Your task to perform on an android device: open chrome privacy settings Image 0: 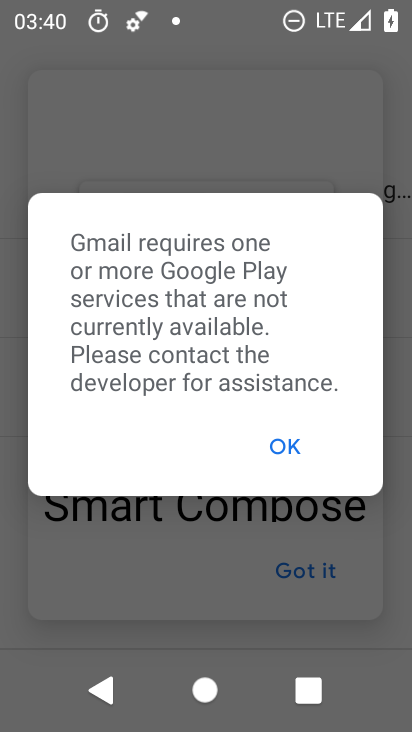
Step 0: click (294, 443)
Your task to perform on an android device: open chrome privacy settings Image 1: 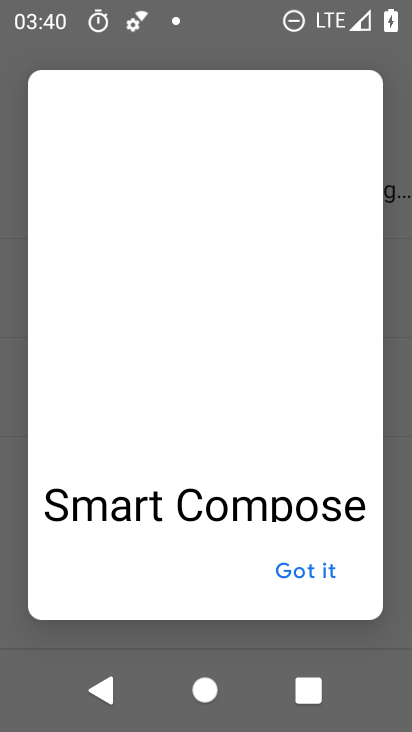
Step 1: press home button
Your task to perform on an android device: open chrome privacy settings Image 2: 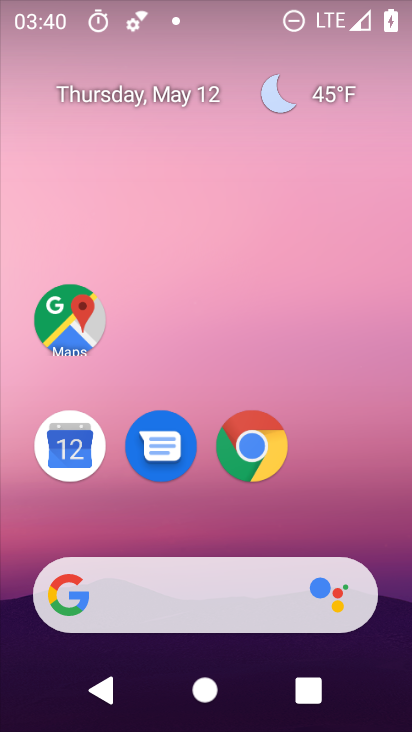
Step 2: click (270, 447)
Your task to perform on an android device: open chrome privacy settings Image 3: 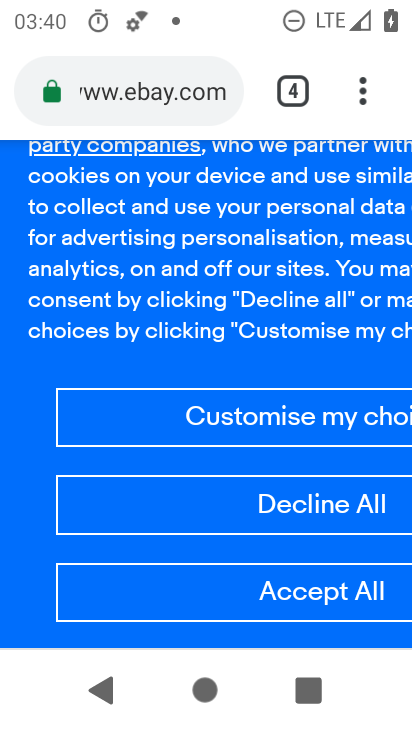
Step 3: click (357, 101)
Your task to perform on an android device: open chrome privacy settings Image 4: 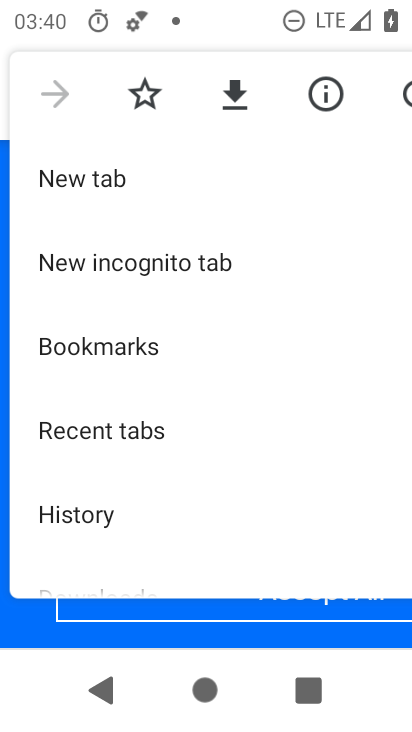
Step 4: drag from (147, 491) to (231, 196)
Your task to perform on an android device: open chrome privacy settings Image 5: 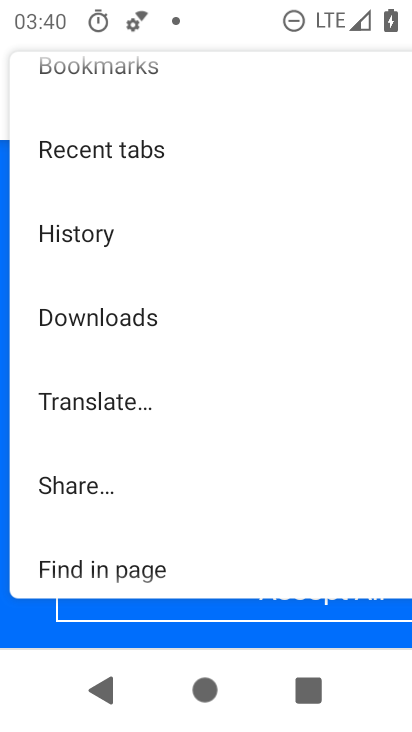
Step 5: drag from (112, 533) to (206, 282)
Your task to perform on an android device: open chrome privacy settings Image 6: 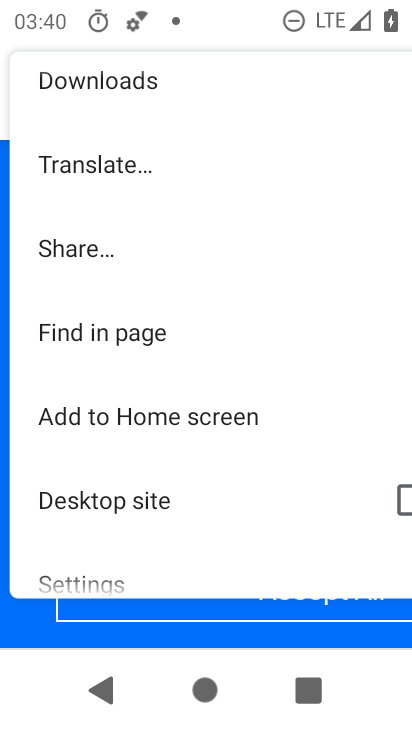
Step 6: drag from (131, 567) to (187, 321)
Your task to perform on an android device: open chrome privacy settings Image 7: 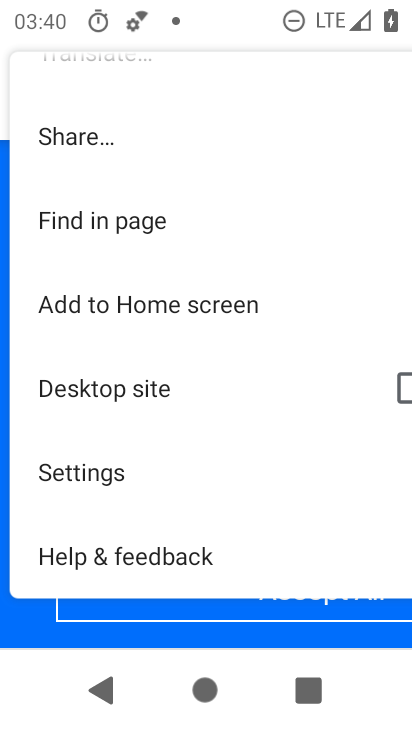
Step 7: click (122, 475)
Your task to perform on an android device: open chrome privacy settings Image 8: 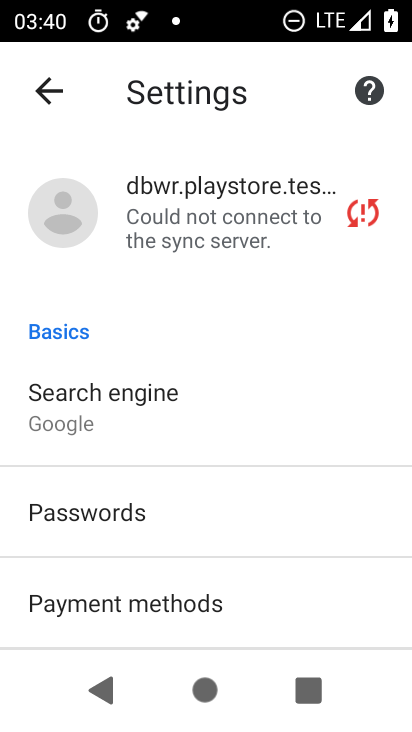
Step 8: drag from (185, 597) to (274, 277)
Your task to perform on an android device: open chrome privacy settings Image 9: 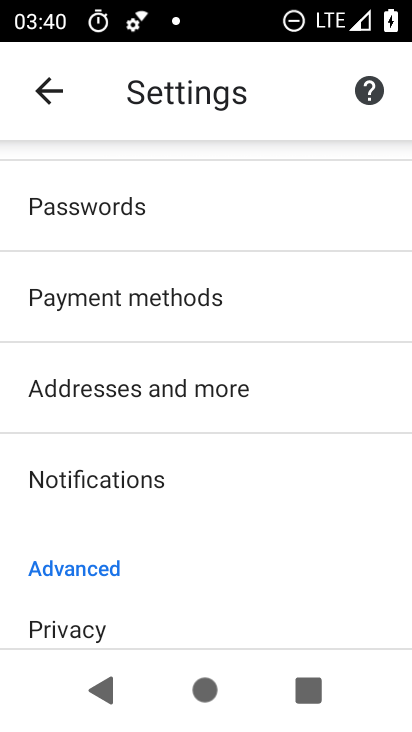
Step 9: drag from (266, 515) to (290, 316)
Your task to perform on an android device: open chrome privacy settings Image 10: 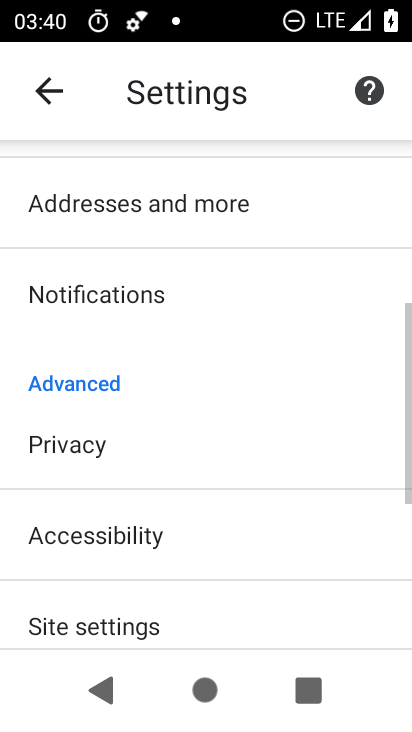
Step 10: click (195, 439)
Your task to perform on an android device: open chrome privacy settings Image 11: 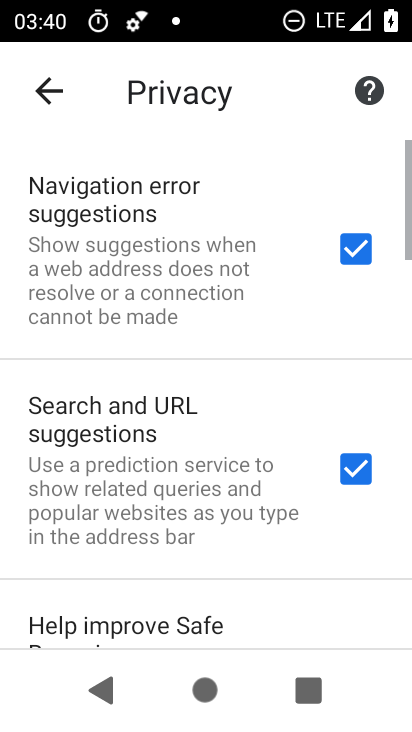
Step 11: task complete